Your task to perform on an android device: turn on improve location accuracy Image 0: 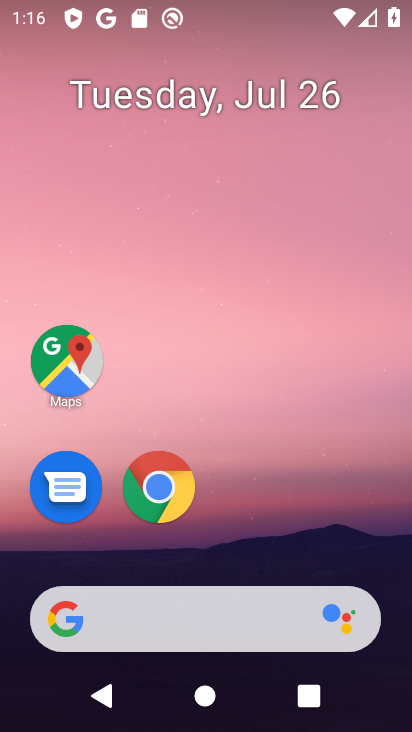
Step 0: drag from (226, 644) to (240, 71)
Your task to perform on an android device: turn on improve location accuracy Image 1: 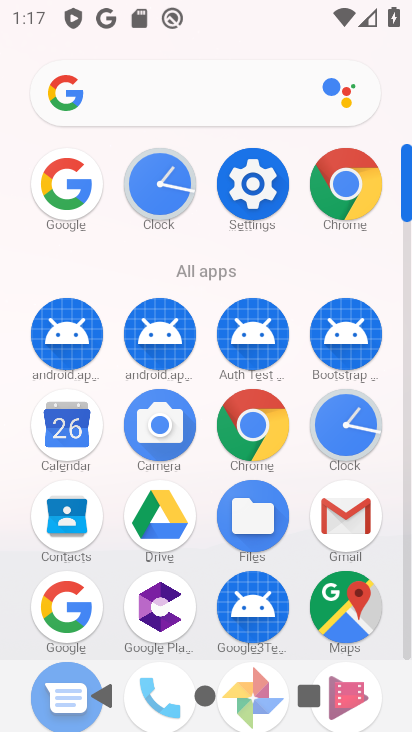
Step 1: click (246, 222)
Your task to perform on an android device: turn on improve location accuracy Image 2: 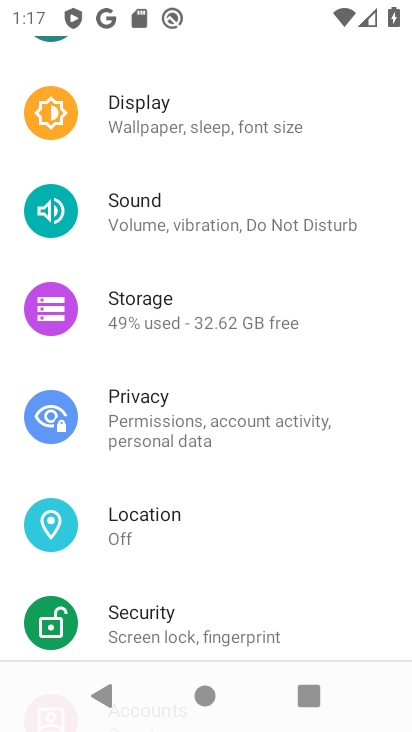
Step 2: drag from (217, 265) to (184, 543)
Your task to perform on an android device: turn on improve location accuracy Image 3: 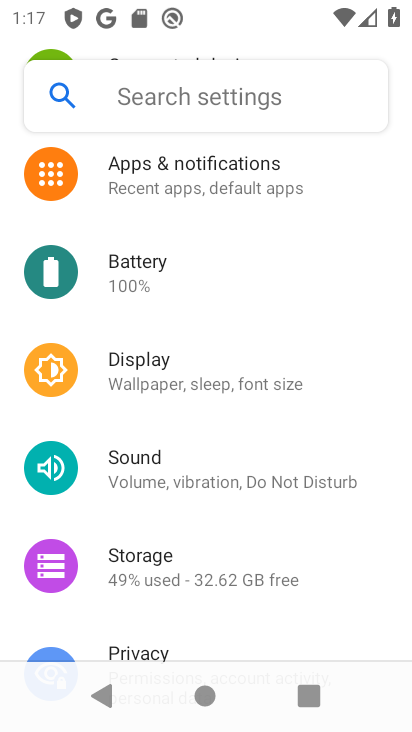
Step 3: drag from (168, 276) to (133, 673)
Your task to perform on an android device: turn on improve location accuracy Image 4: 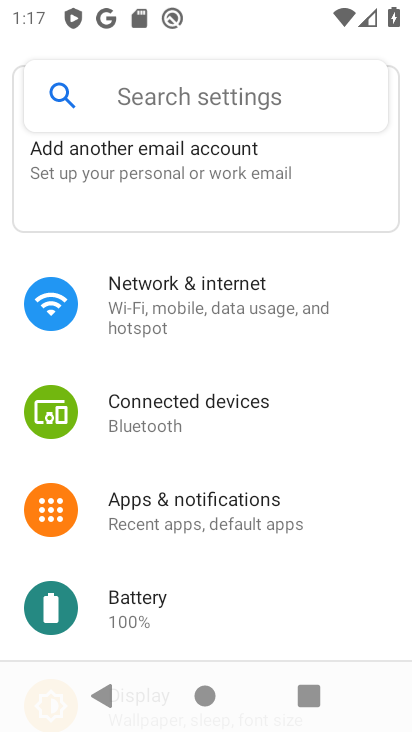
Step 4: drag from (214, 538) to (241, 192)
Your task to perform on an android device: turn on improve location accuracy Image 5: 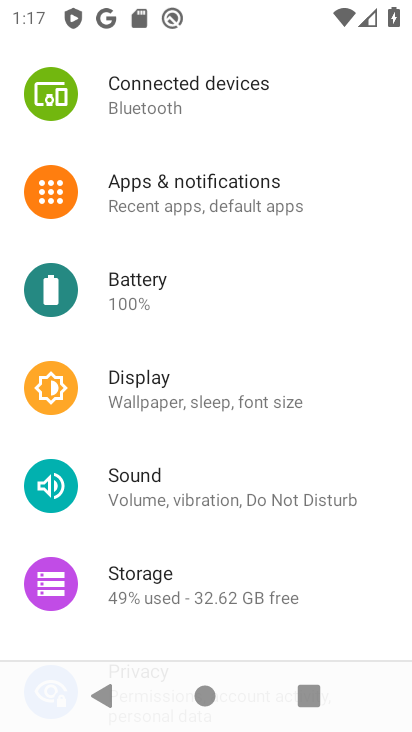
Step 5: drag from (201, 540) to (201, 314)
Your task to perform on an android device: turn on improve location accuracy Image 6: 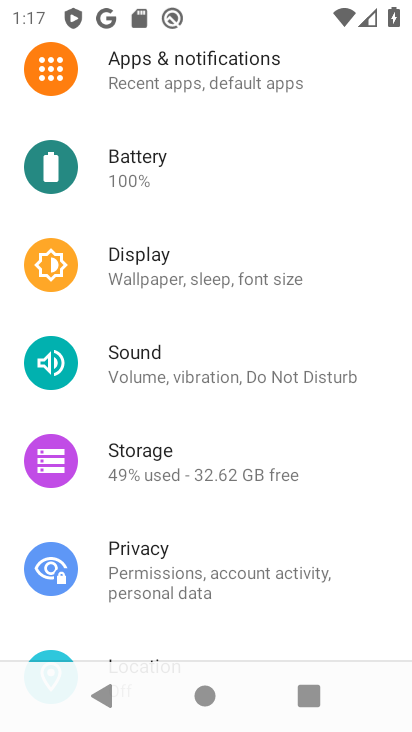
Step 6: drag from (153, 423) to (148, 140)
Your task to perform on an android device: turn on improve location accuracy Image 7: 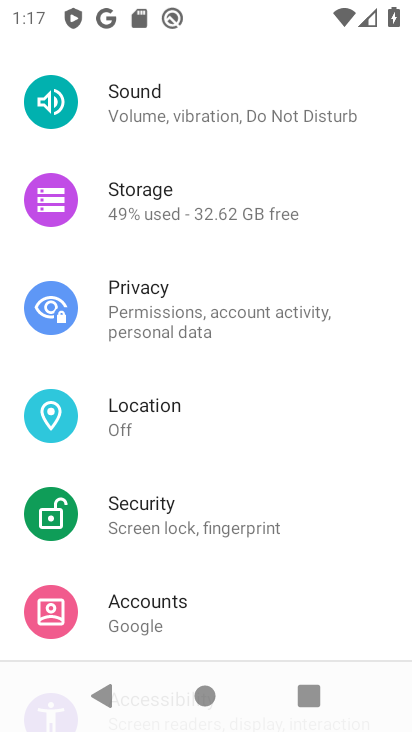
Step 7: click (142, 613)
Your task to perform on an android device: turn on improve location accuracy Image 8: 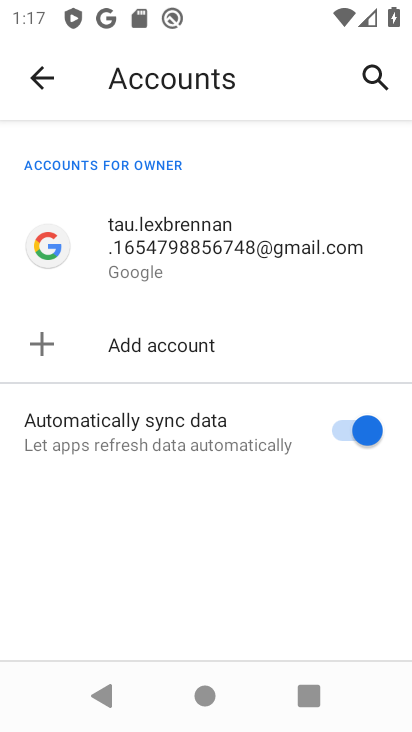
Step 8: task complete